Your task to perform on an android device: search for starred emails in the gmail app Image 0: 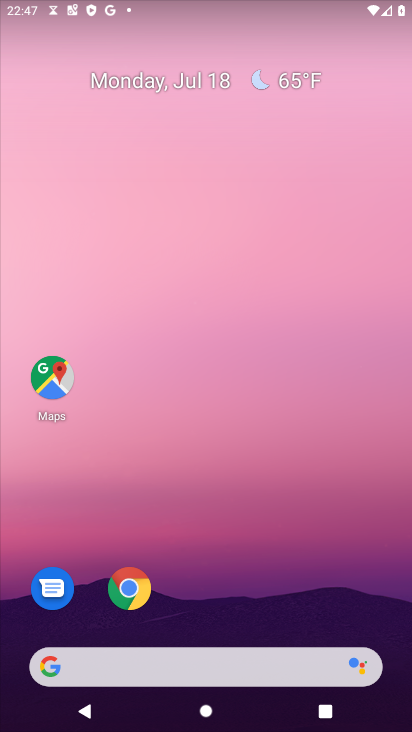
Step 0: drag from (168, 674) to (321, 88)
Your task to perform on an android device: search for starred emails in the gmail app Image 1: 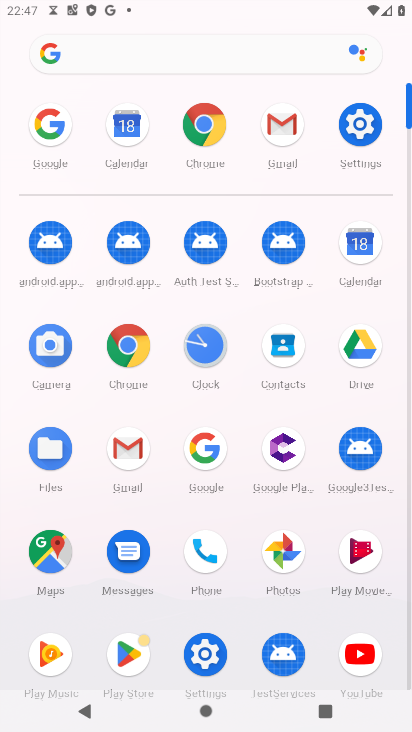
Step 1: click (280, 123)
Your task to perform on an android device: search for starred emails in the gmail app Image 2: 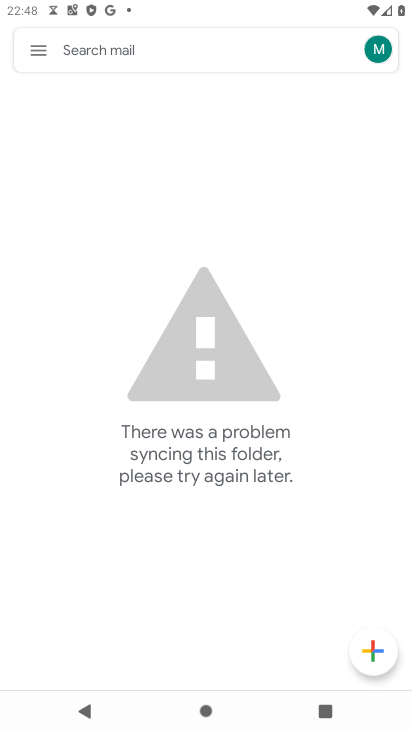
Step 2: click (35, 51)
Your task to perform on an android device: search for starred emails in the gmail app Image 3: 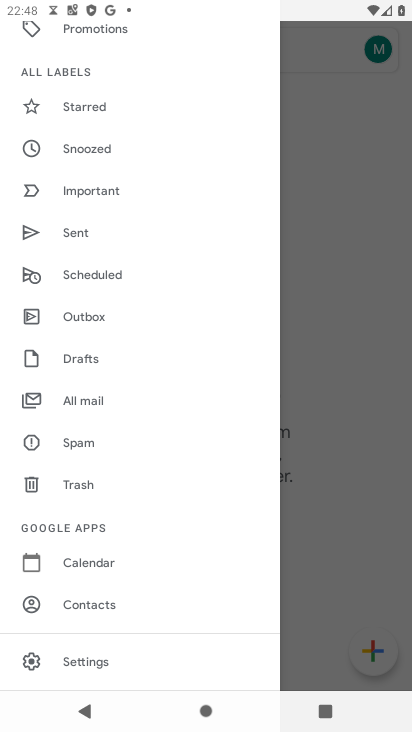
Step 3: click (91, 102)
Your task to perform on an android device: search for starred emails in the gmail app Image 4: 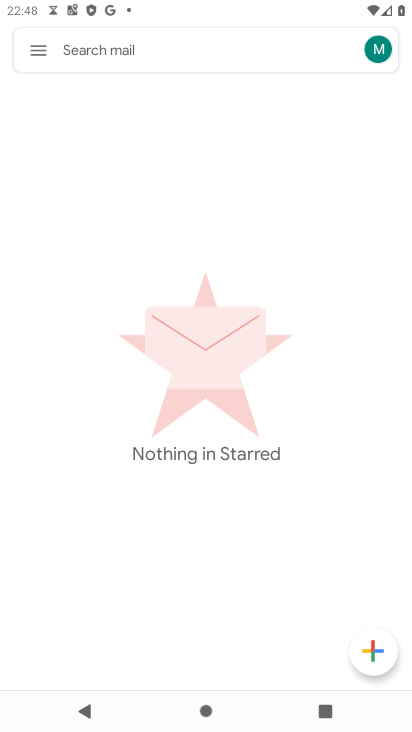
Step 4: click (42, 48)
Your task to perform on an android device: search for starred emails in the gmail app Image 5: 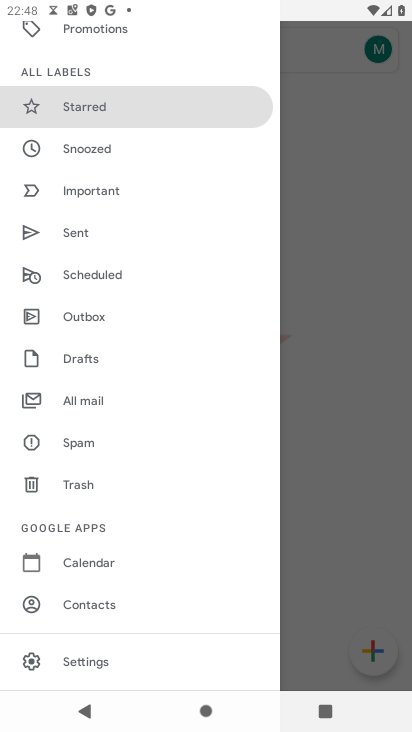
Step 5: click (93, 397)
Your task to perform on an android device: search for starred emails in the gmail app Image 6: 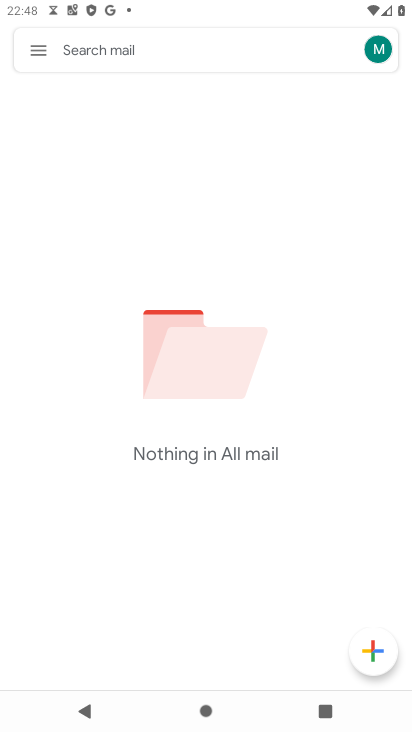
Step 6: task complete